Your task to perform on an android device: Open the phone app and click the voicemail tab. Image 0: 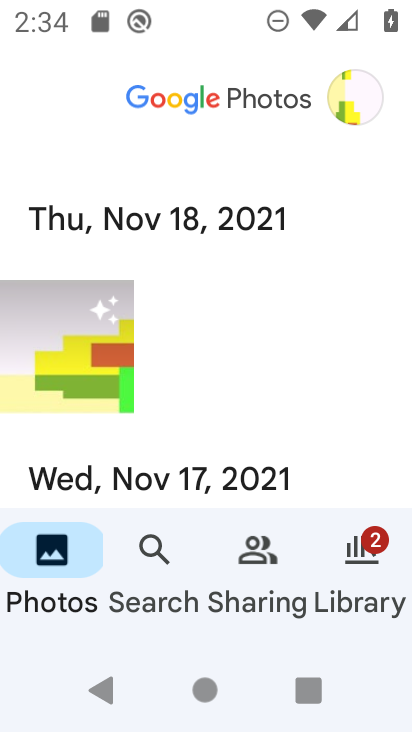
Step 0: press home button
Your task to perform on an android device: Open the phone app and click the voicemail tab. Image 1: 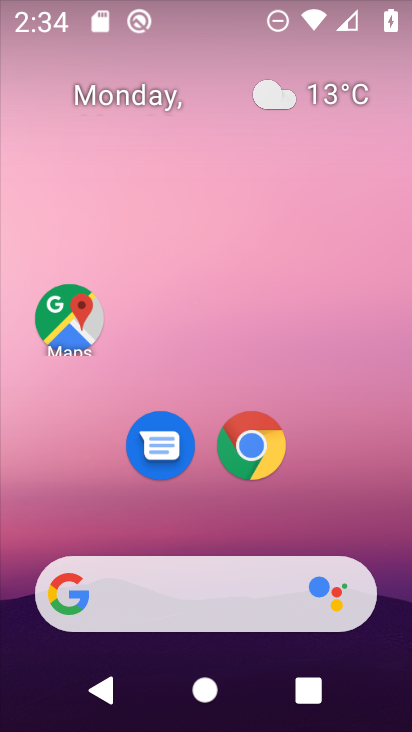
Step 1: drag from (391, 621) to (283, 139)
Your task to perform on an android device: Open the phone app and click the voicemail tab. Image 2: 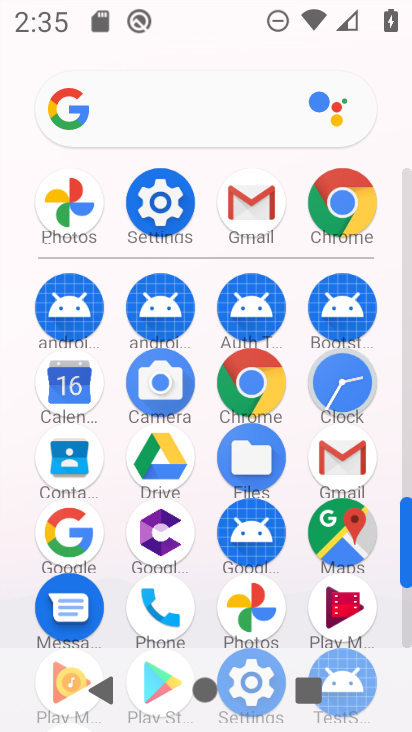
Step 2: click (181, 605)
Your task to perform on an android device: Open the phone app and click the voicemail tab. Image 3: 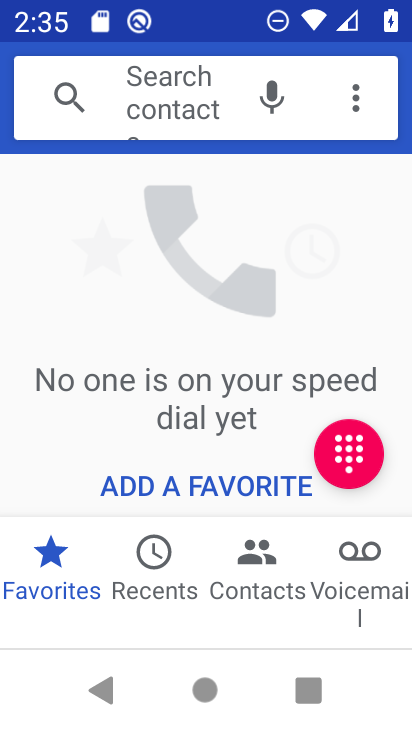
Step 3: click (356, 562)
Your task to perform on an android device: Open the phone app and click the voicemail tab. Image 4: 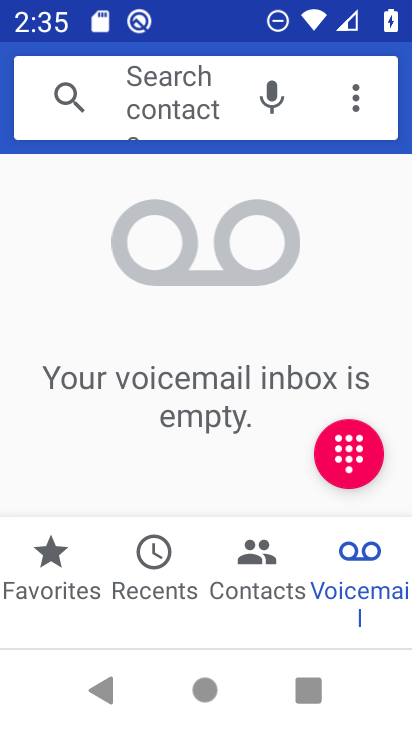
Step 4: task complete